Your task to perform on an android device: Go to location settings Image 0: 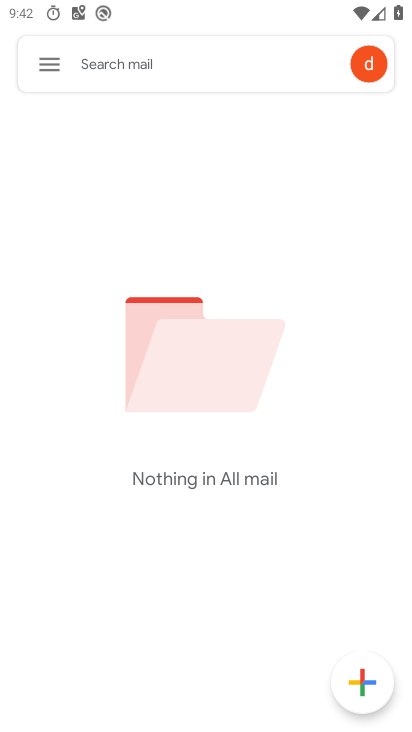
Step 0: press back button
Your task to perform on an android device: Go to location settings Image 1: 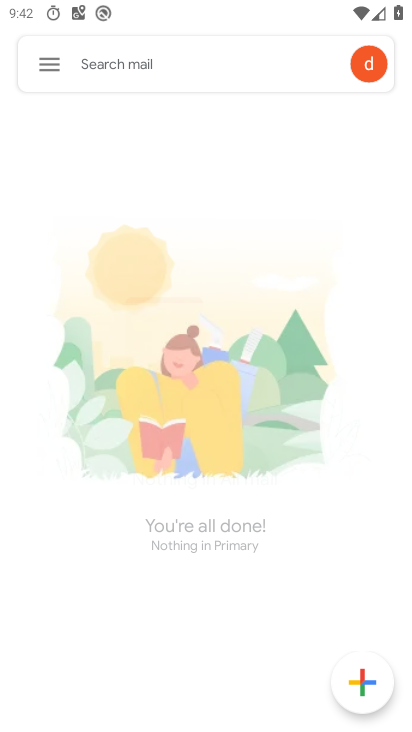
Step 1: press back button
Your task to perform on an android device: Go to location settings Image 2: 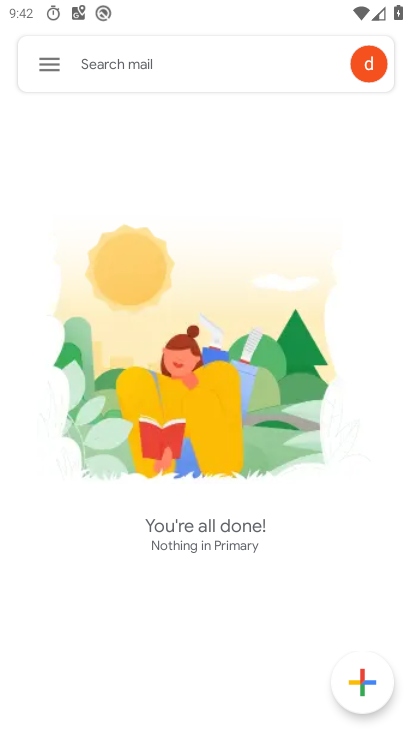
Step 2: press back button
Your task to perform on an android device: Go to location settings Image 3: 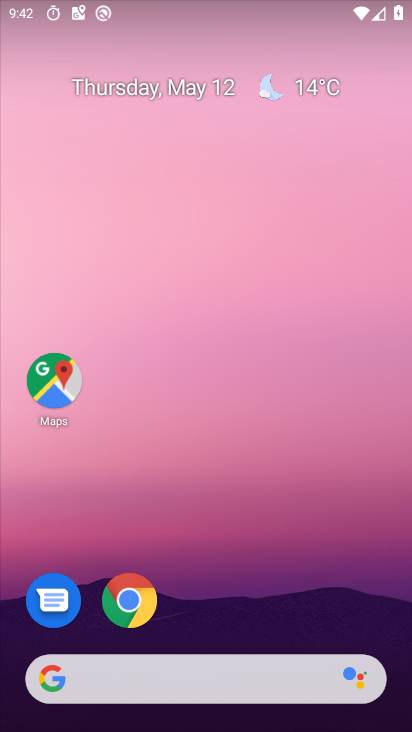
Step 3: drag from (231, 576) to (46, 5)
Your task to perform on an android device: Go to location settings Image 4: 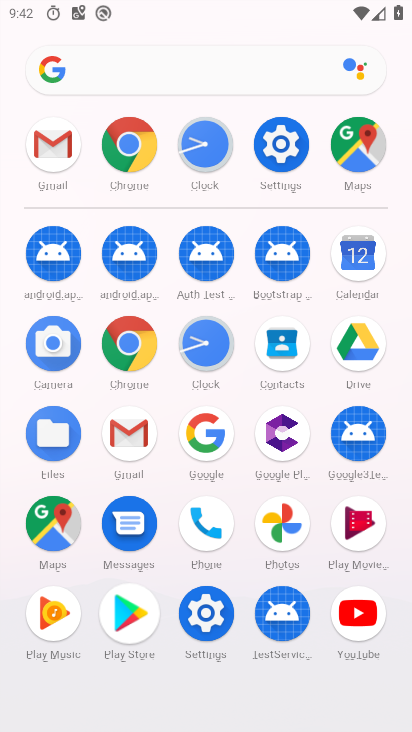
Step 4: drag from (204, 427) to (171, 0)
Your task to perform on an android device: Go to location settings Image 5: 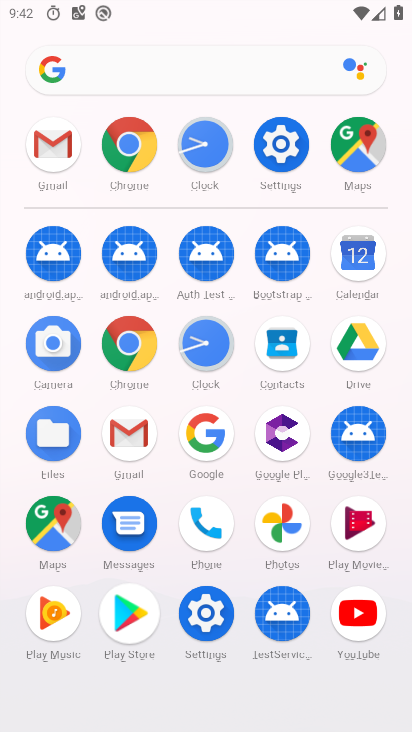
Step 5: drag from (188, 484) to (239, 22)
Your task to perform on an android device: Go to location settings Image 6: 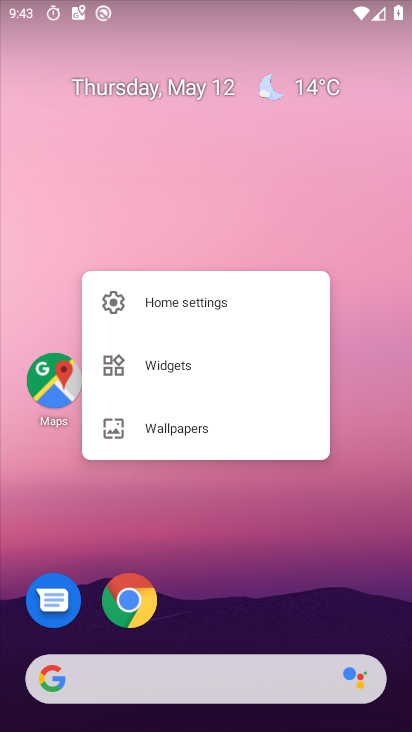
Step 6: drag from (225, 447) to (137, 44)
Your task to perform on an android device: Go to location settings Image 7: 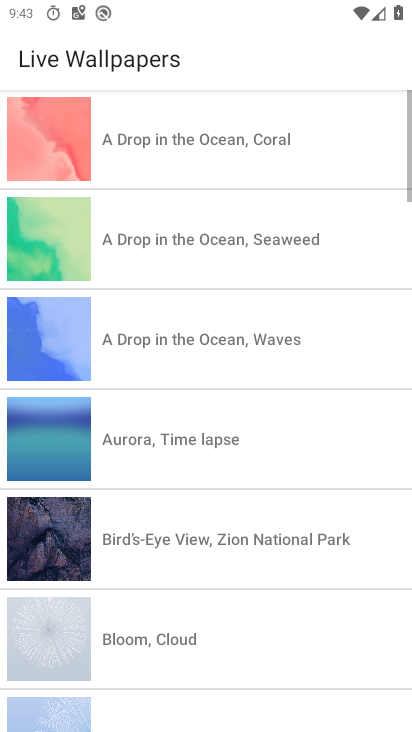
Step 7: drag from (218, 276) to (131, 9)
Your task to perform on an android device: Go to location settings Image 8: 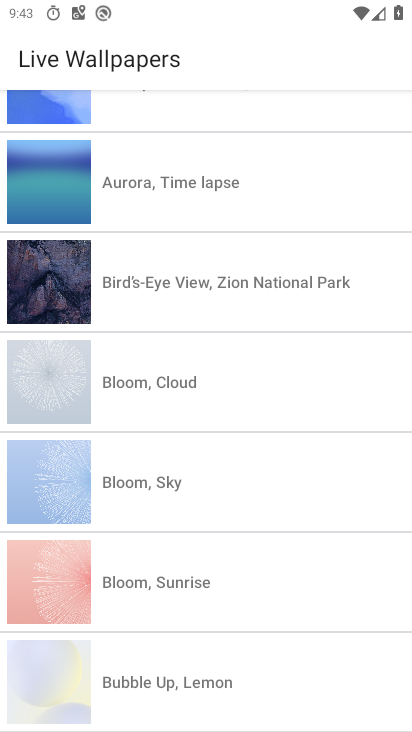
Step 8: drag from (200, 473) to (175, 91)
Your task to perform on an android device: Go to location settings Image 9: 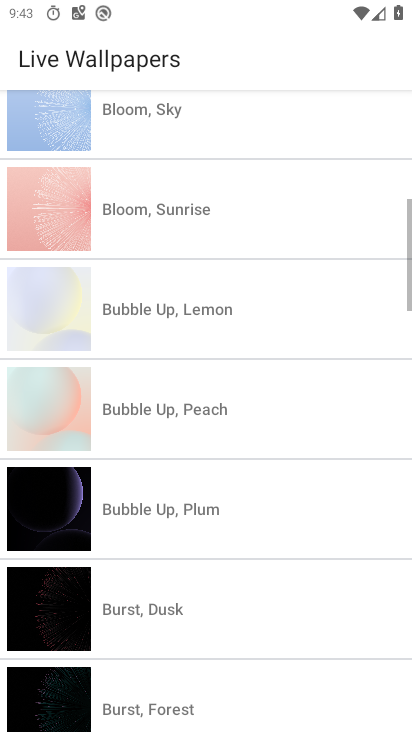
Step 9: press back button
Your task to perform on an android device: Go to location settings Image 10: 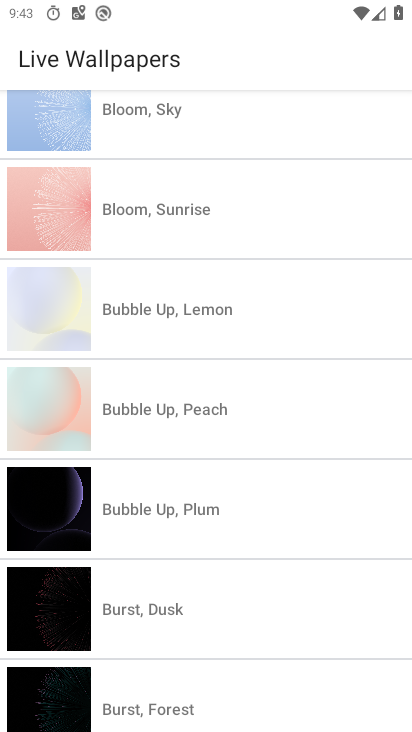
Step 10: press back button
Your task to perform on an android device: Go to location settings Image 11: 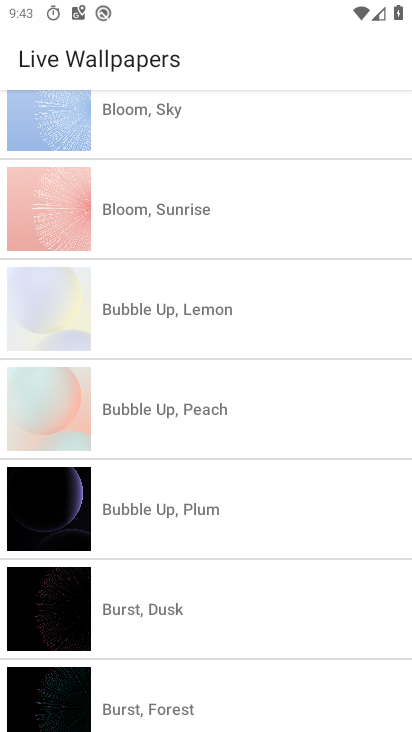
Step 11: press home button
Your task to perform on an android device: Go to location settings Image 12: 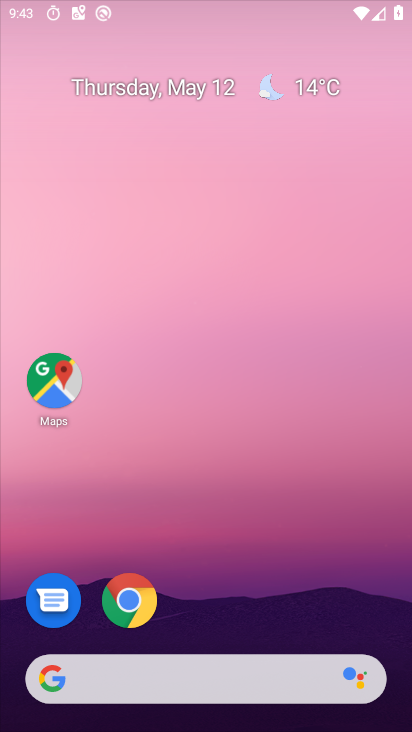
Step 12: press home button
Your task to perform on an android device: Go to location settings Image 13: 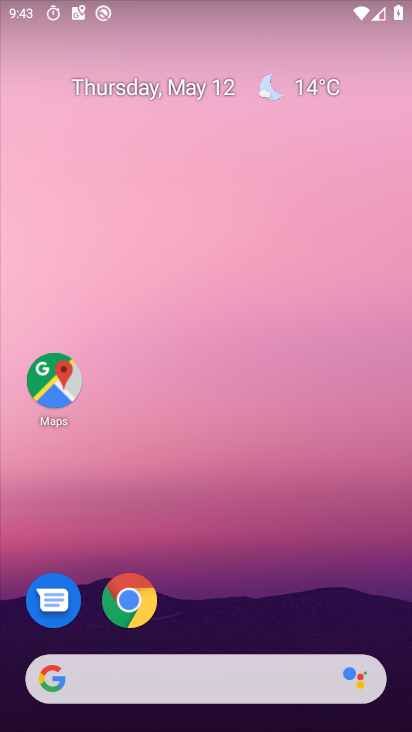
Step 13: press back button
Your task to perform on an android device: Go to location settings Image 14: 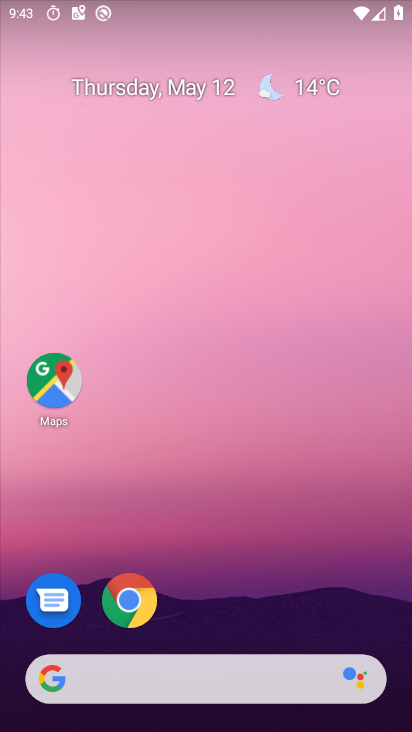
Step 14: press back button
Your task to perform on an android device: Go to location settings Image 15: 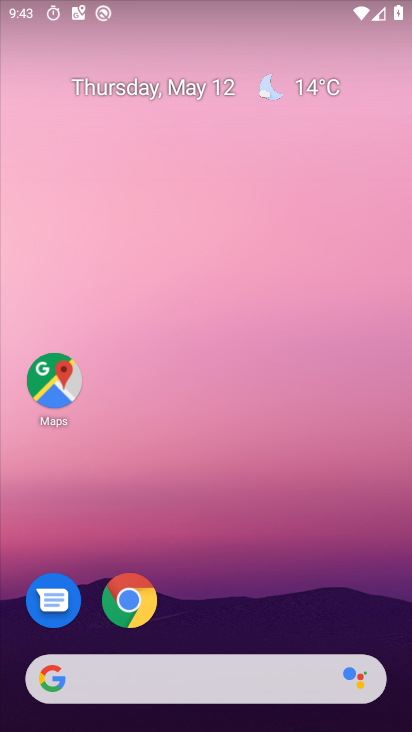
Step 15: drag from (280, 518) to (157, 2)
Your task to perform on an android device: Go to location settings Image 16: 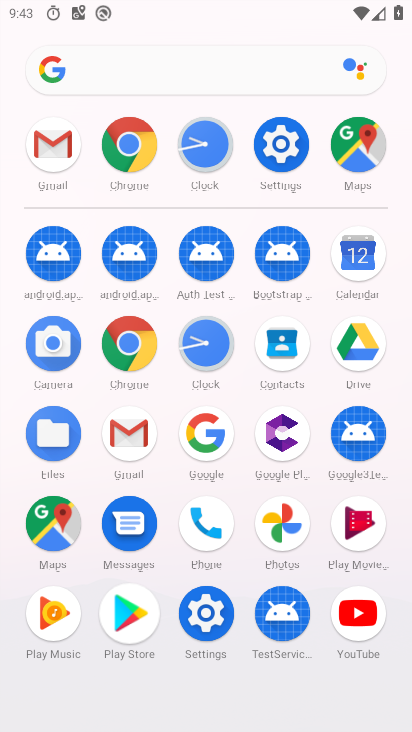
Step 16: click (288, 159)
Your task to perform on an android device: Go to location settings Image 17: 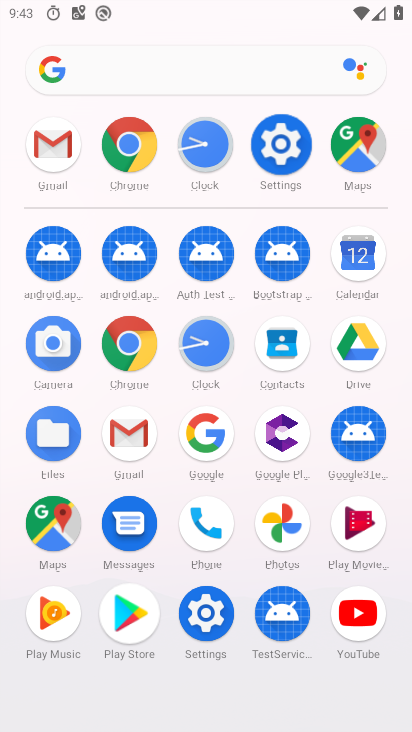
Step 17: click (288, 159)
Your task to perform on an android device: Go to location settings Image 18: 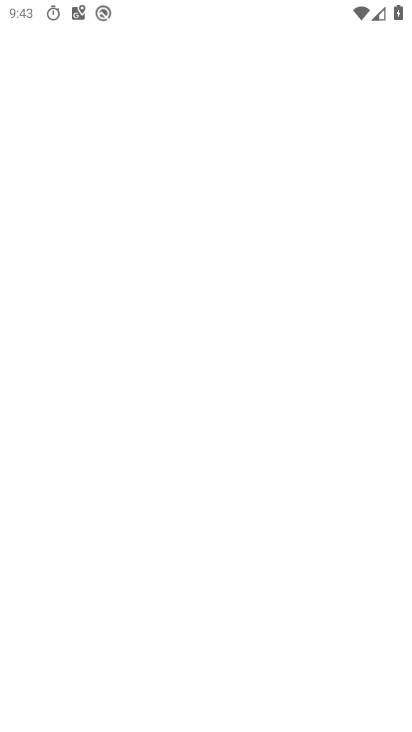
Step 18: click (288, 159)
Your task to perform on an android device: Go to location settings Image 19: 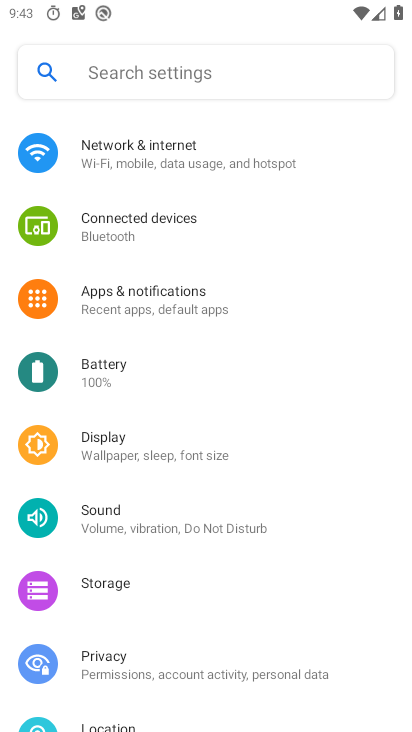
Step 19: click (287, 155)
Your task to perform on an android device: Go to location settings Image 20: 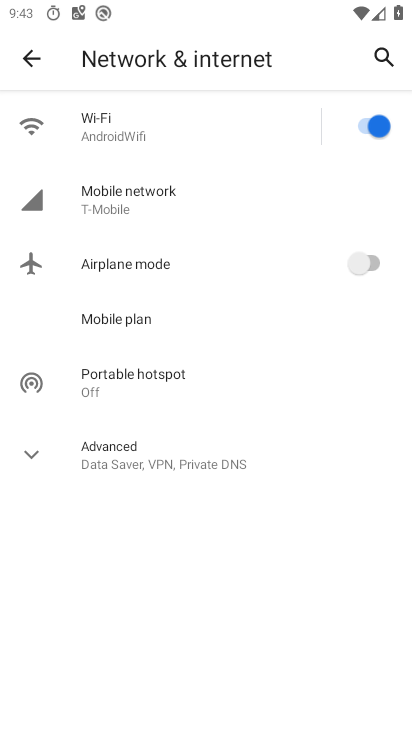
Step 20: click (32, 45)
Your task to perform on an android device: Go to location settings Image 21: 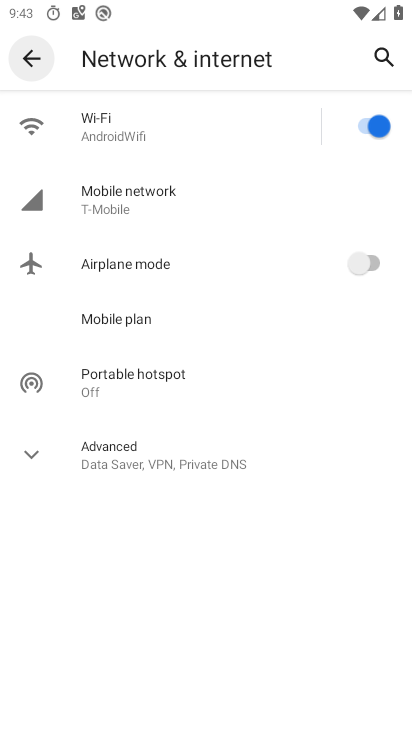
Step 21: click (27, 52)
Your task to perform on an android device: Go to location settings Image 22: 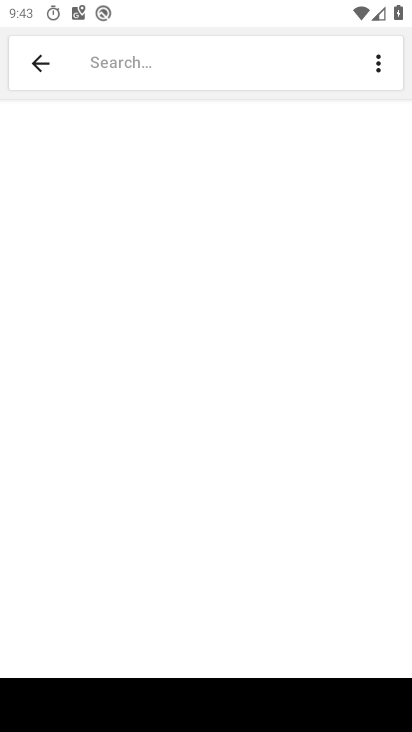
Step 22: click (28, 64)
Your task to perform on an android device: Go to location settings Image 23: 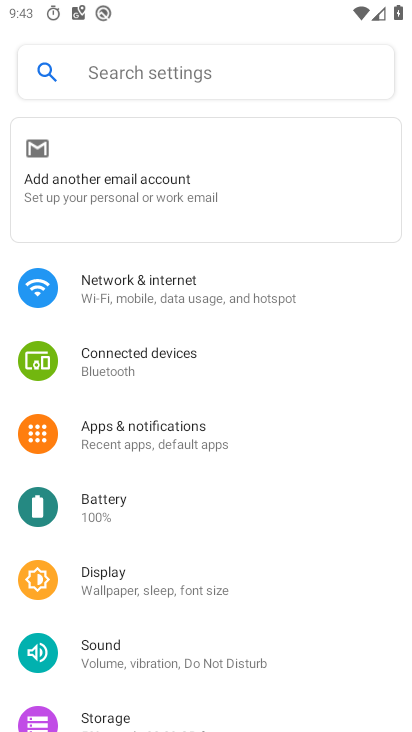
Step 23: drag from (152, 490) to (104, 107)
Your task to perform on an android device: Go to location settings Image 24: 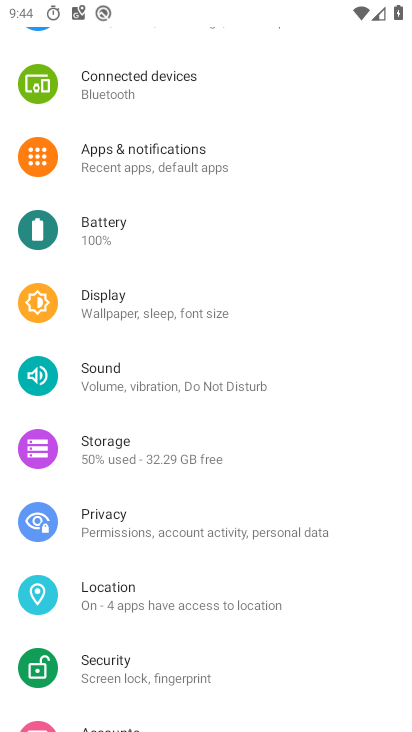
Step 24: click (122, 590)
Your task to perform on an android device: Go to location settings Image 25: 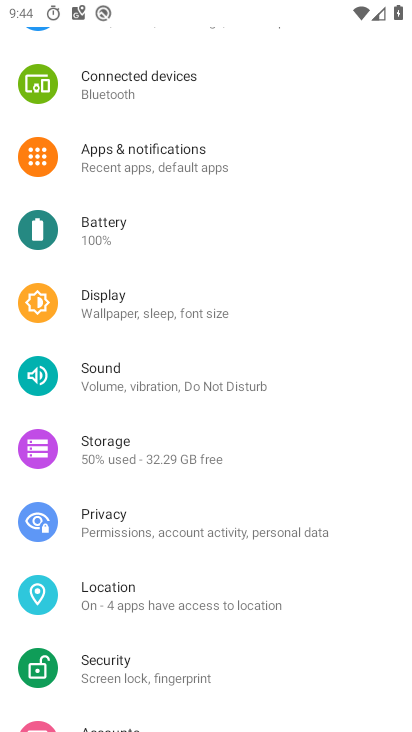
Step 25: click (124, 593)
Your task to perform on an android device: Go to location settings Image 26: 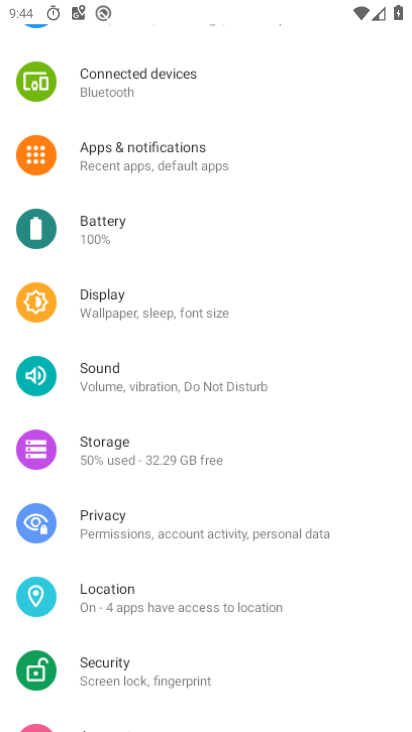
Step 26: click (124, 608)
Your task to perform on an android device: Go to location settings Image 27: 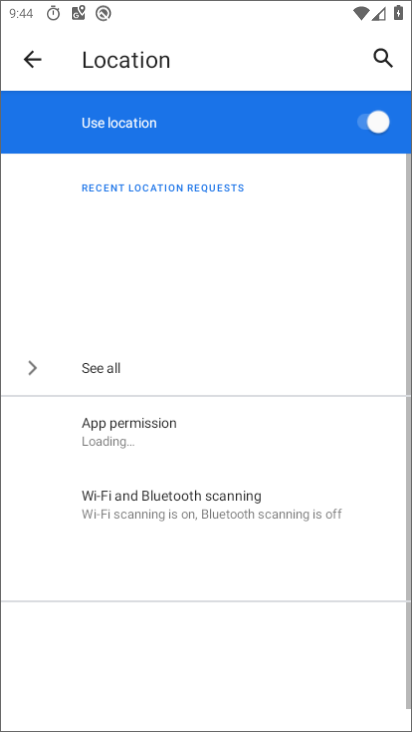
Step 27: click (124, 608)
Your task to perform on an android device: Go to location settings Image 28: 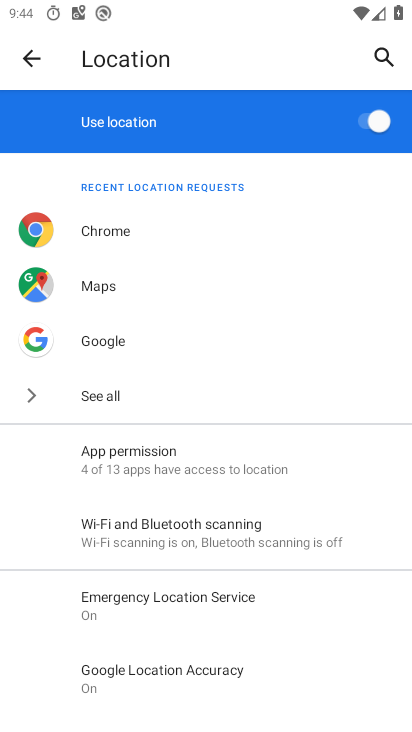
Step 28: task complete